Your task to perform on an android device: toggle data saver in the chrome app Image 0: 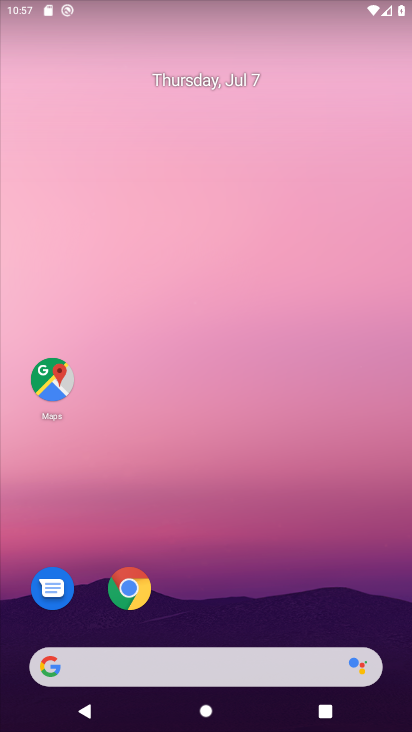
Step 0: click (127, 591)
Your task to perform on an android device: toggle data saver in the chrome app Image 1: 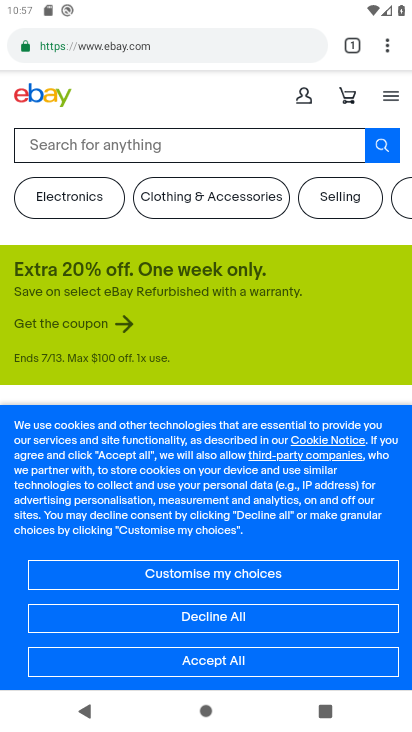
Step 1: drag from (389, 38) to (247, 558)
Your task to perform on an android device: toggle data saver in the chrome app Image 2: 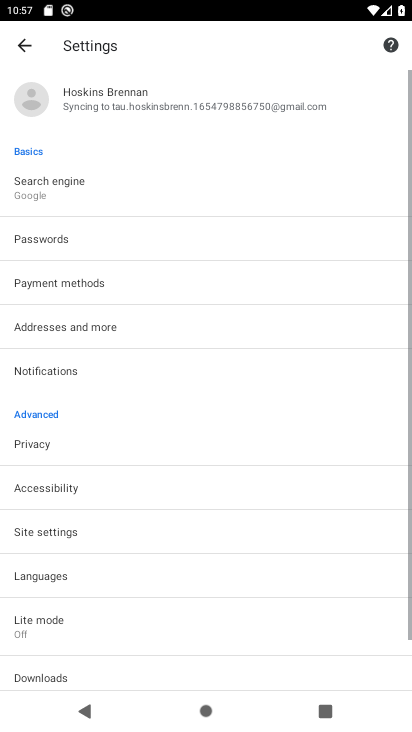
Step 2: click (64, 624)
Your task to perform on an android device: toggle data saver in the chrome app Image 3: 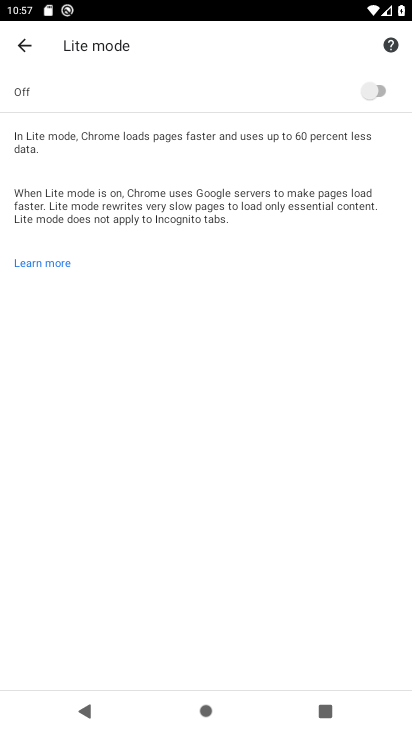
Step 3: click (381, 87)
Your task to perform on an android device: toggle data saver in the chrome app Image 4: 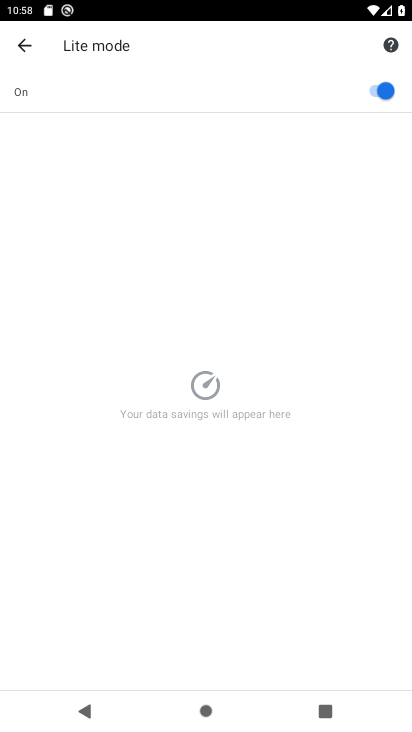
Step 4: task complete